Your task to perform on an android device: add a contact Image 0: 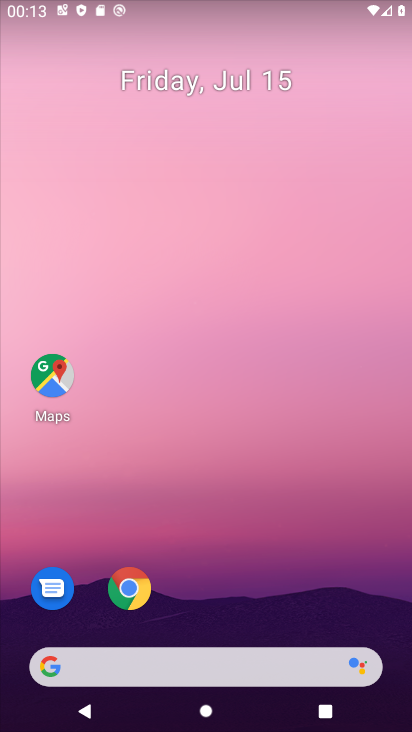
Step 0: drag from (207, 613) to (219, 66)
Your task to perform on an android device: add a contact Image 1: 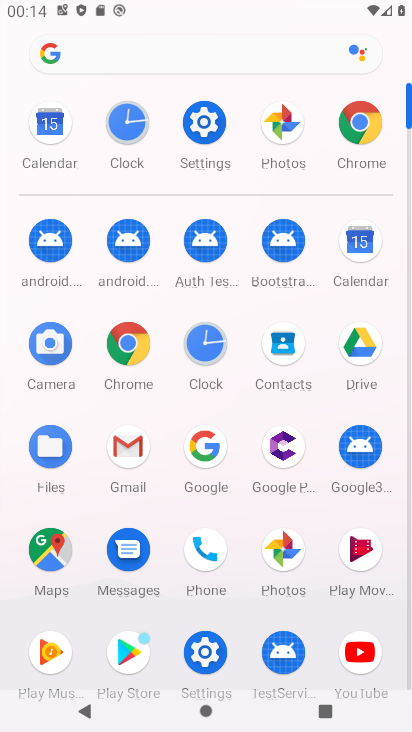
Step 1: click (293, 363)
Your task to perform on an android device: add a contact Image 2: 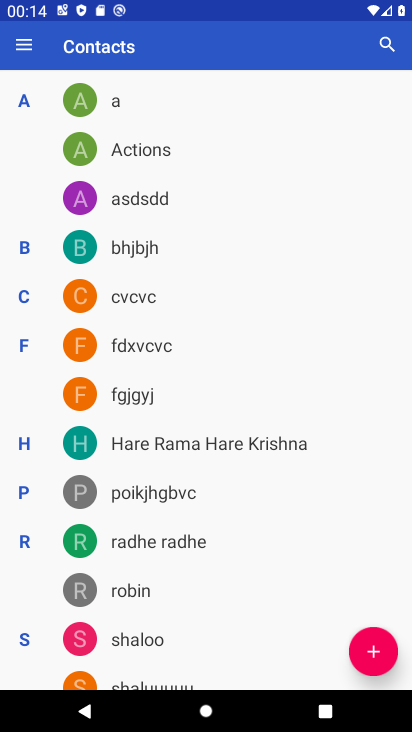
Step 2: click (380, 653)
Your task to perform on an android device: add a contact Image 3: 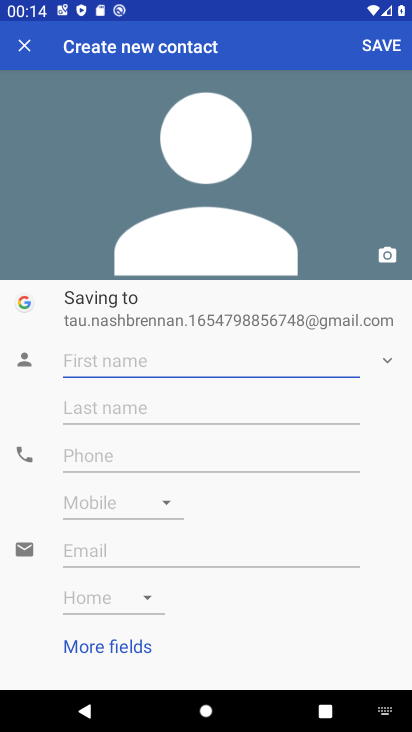
Step 3: click (109, 367)
Your task to perform on an android device: add a contact Image 4: 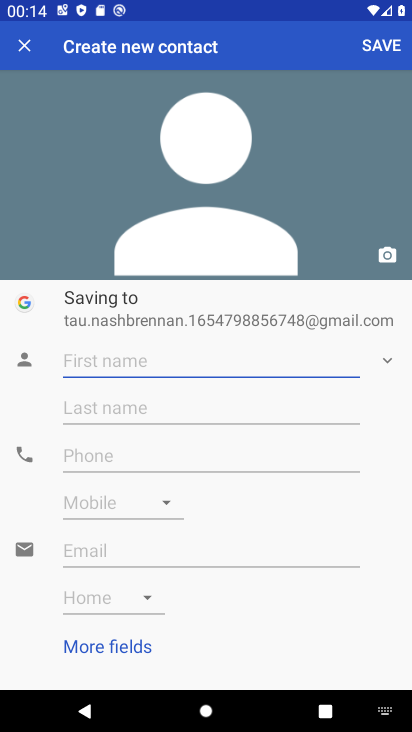
Step 4: type "fvfv"
Your task to perform on an android device: add a contact Image 5: 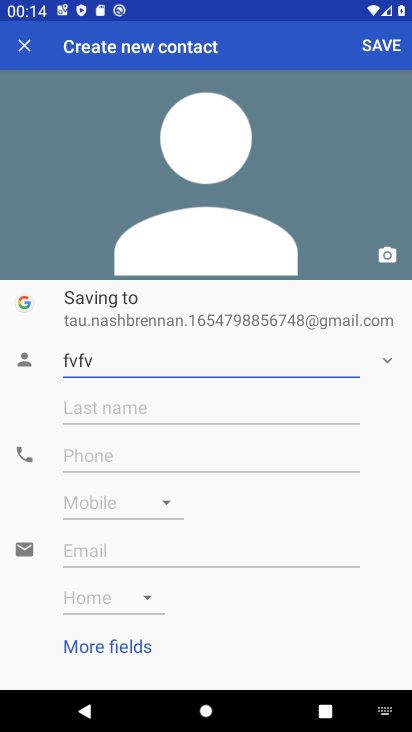
Step 5: click (87, 454)
Your task to perform on an android device: add a contact Image 6: 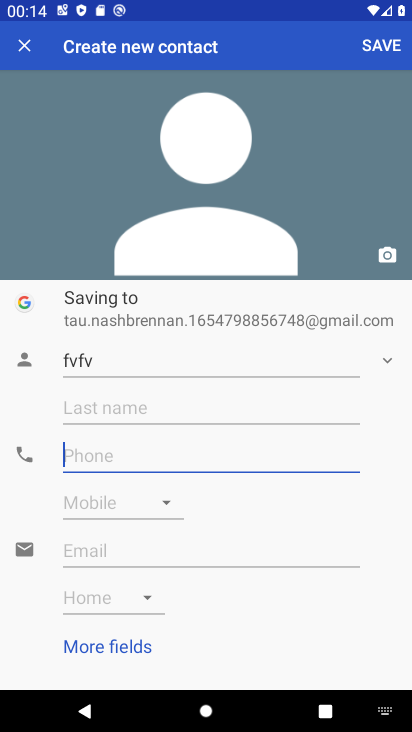
Step 6: type "98978"
Your task to perform on an android device: add a contact Image 7: 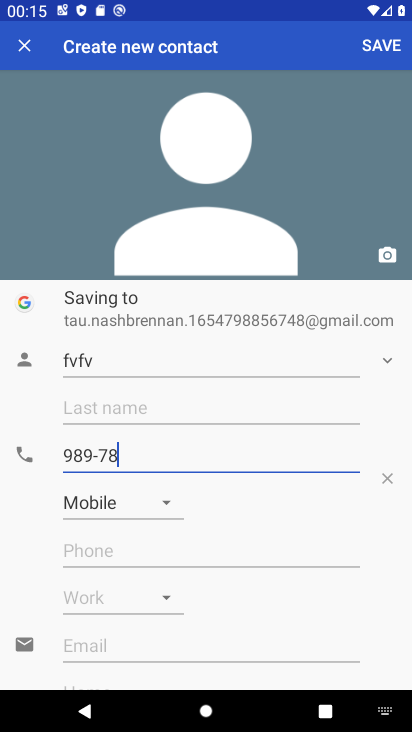
Step 7: click (373, 41)
Your task to perform on an android device: add a contact Image 8: 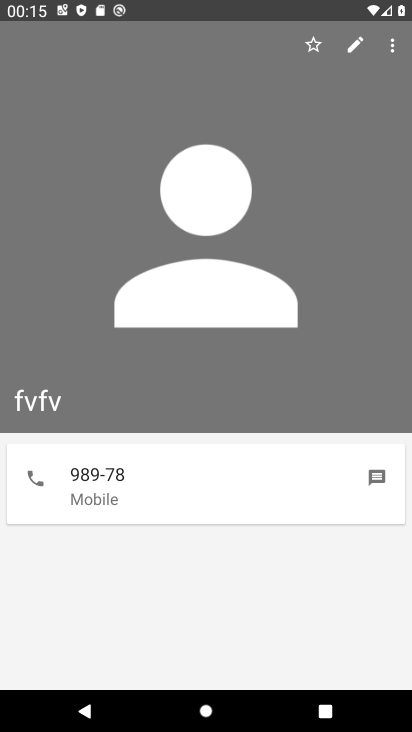
Step 8: task complete